Your task to perform on an android device: Add "razer huntsman" to the cart on bestbuy, then select checkout. Image 0: 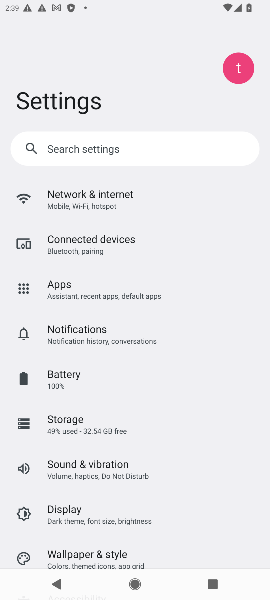
Step 0: press home button
Your task to perform on an android device: Add "razer huntsman" to the cart on bestbuy, then select checkout. Image 1: 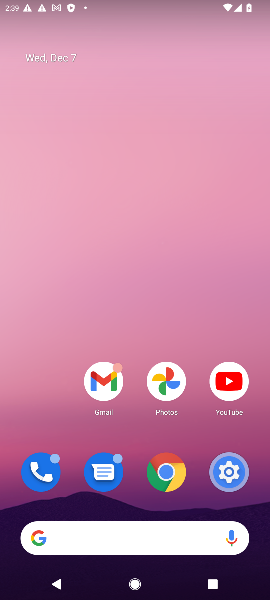
Step 1: drag from (134, 529) to (185, 222)
Your task to perform on an android device: Add "razer huntsman" to the cart on bestbuy, then select checkout. Image 2: 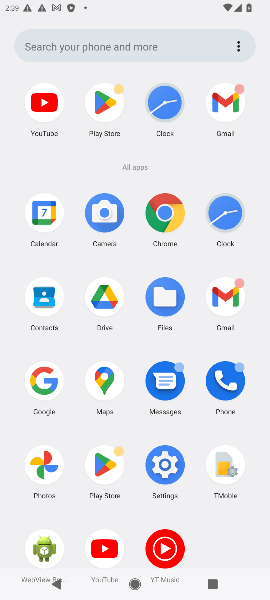
Step 2: click (44, 376)
Your task to perform on an android device: Add "razer huntsman" to the cart on bestbuy, then select checkout. Image 3: 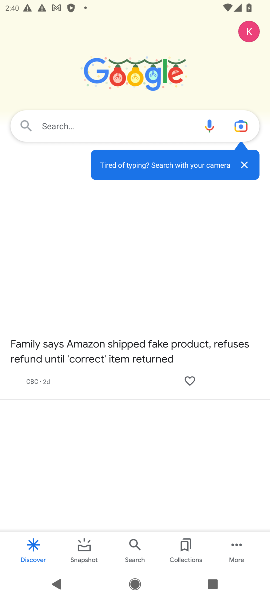
Step 3: click (113, 125)
Your task to perform on an android device: Add "razer huntsman" to the cart on bestbuy, then select checkout. Image 4: 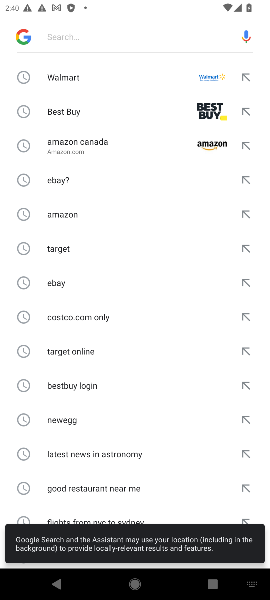
Step 4: click (215, 106)
Your task to perform on an android device: Add "razer huntsman" to the cart on bestbuy, then select checkout. Image 5: 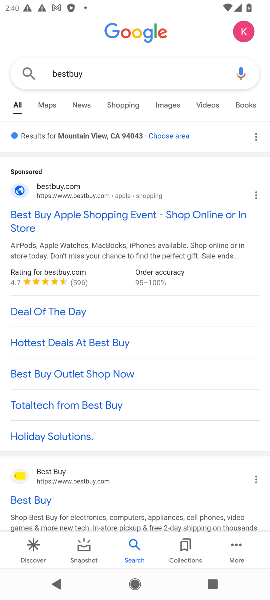
Step 5: click (117, 214)
Your task to perform on an android device: Add "razer huntsman" to the cart on bestbuy, then select checkout. Image 6: 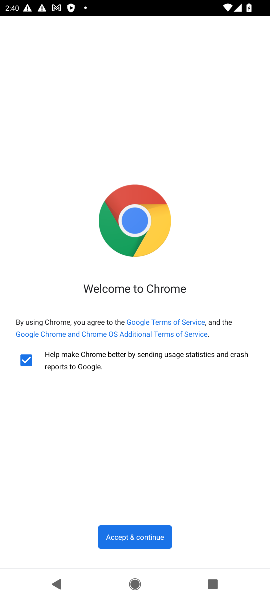
Step 6: click (155, 537)
Your task to perform on an android device: Add "razer huntsman" to the cart on bestbuy, then select checkout. Image 7: 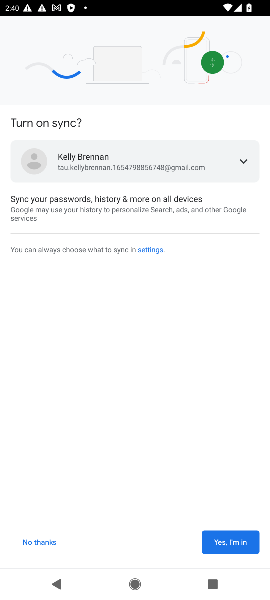
Step 7: click (218, 543)
Your task to perform on an android device: Add "razer huntsman" to the cart on bestbuy, then select checkout. Image 8: 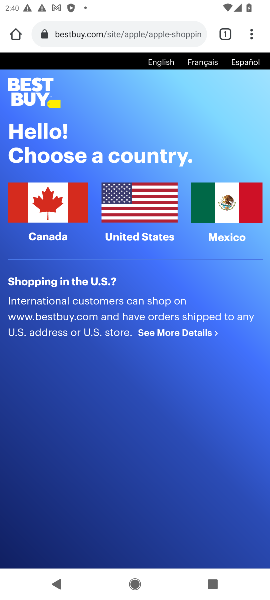
Step 8: click (140, 210)
Your task to perform on an android device: Add "razer huntsman" to the cart on bestbuy, then select checkout. Image 9: 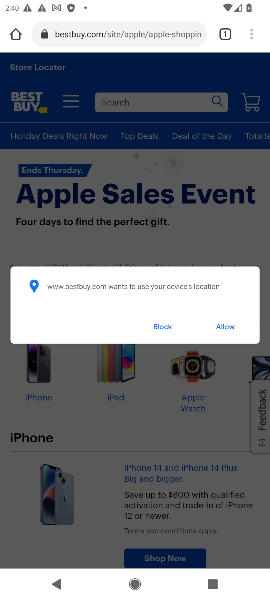
Step 9: click (222, 328)
Your task to perform on an android device: Add "razer huntsman" to the cart on bestbuy, then select checkout. Image 10: 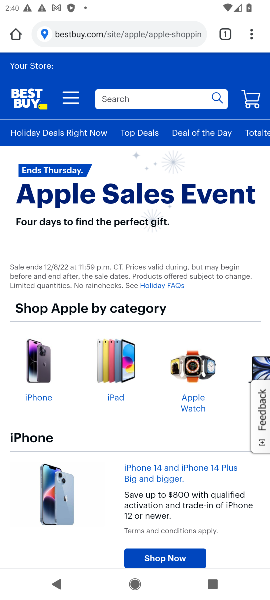
Step 10: click (143, 105)
Your task to perform on an android device: Add "razer huntsman" to the cart on bestbuy, then select checkout. Image 11: 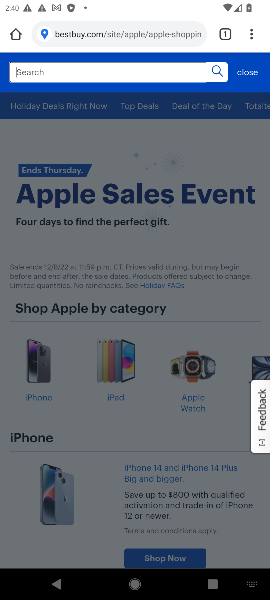
Step 11: type "razer huntsman"
Your task to perform on an android device: Add "razer huntsman" to the cart on bestbuy, then select checkout. Image 12: 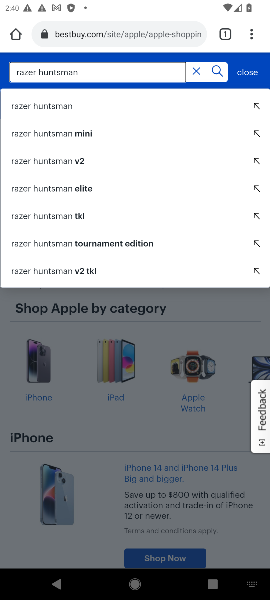
Step 12: click (61, 112)
Your task to perform on an android device: Add "razer huntsman" to the cart on bestbuy, then select checkout. Image 13: 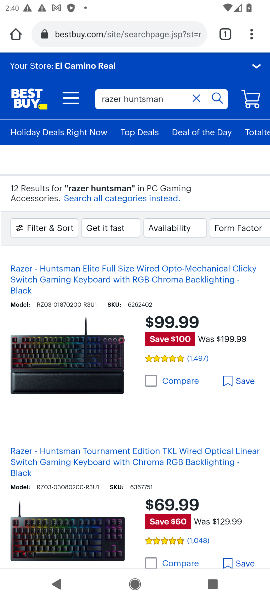
Step 13: click (83, 365)
Your task to perform on an android device: Add "razer huntsman" to the cart on bestbuy, then select checkout. Image 14: 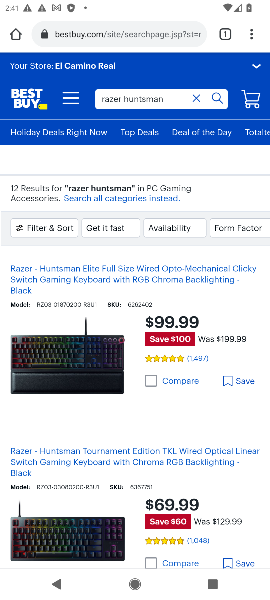
Step 14: click (104, 350)
Your task to perform on an android device: Add "razer huntsman" to the cart on bestbuy, then select checkout. Image 15: 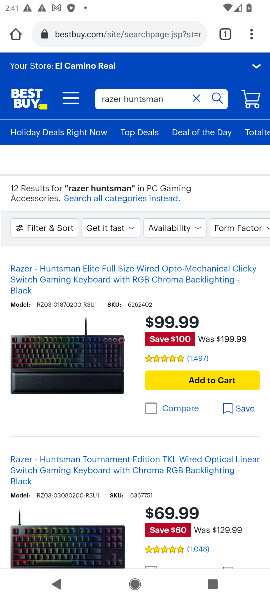
Step 15: click (197, 383)
Your task to perform on an android device: Add "razer huntsman" to the cart on bestbuy, then select checkout. Image 16: 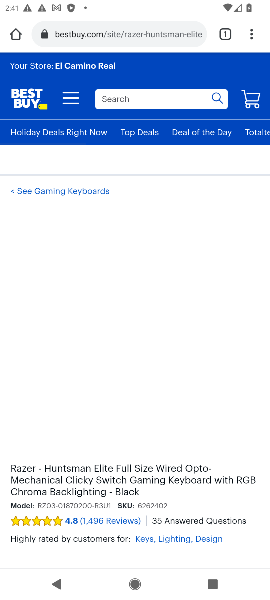
Step 16: click (197, 383)
Your task to perform on an android device: Add "razer huntsman" to the cart on bestbuy, then select checkout. Image 17: 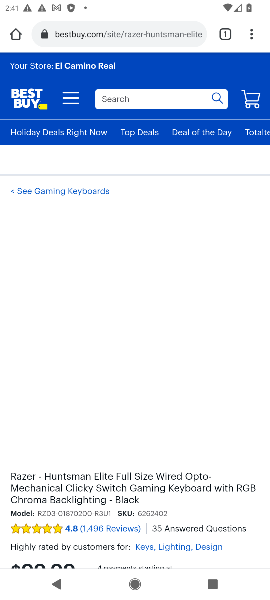
Step 17: task complete